Your task to perform on an android device: What's on my calendar tomorrow? Image 0: 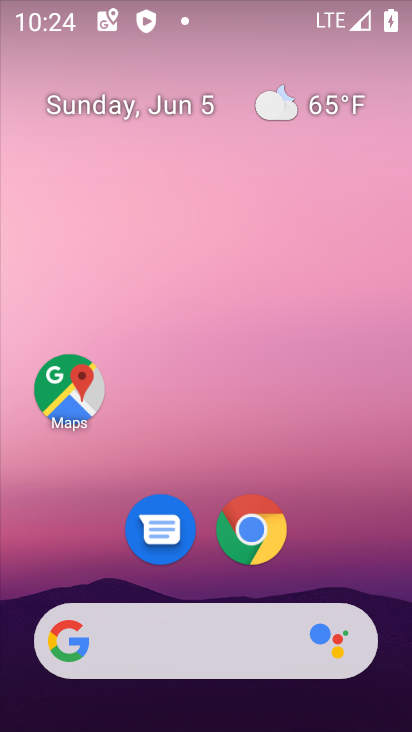
Step 0: drag from (135, 515) to (99, 8)
Your task to perform on an android device: What's on my calendar tomorrow? Image 1: 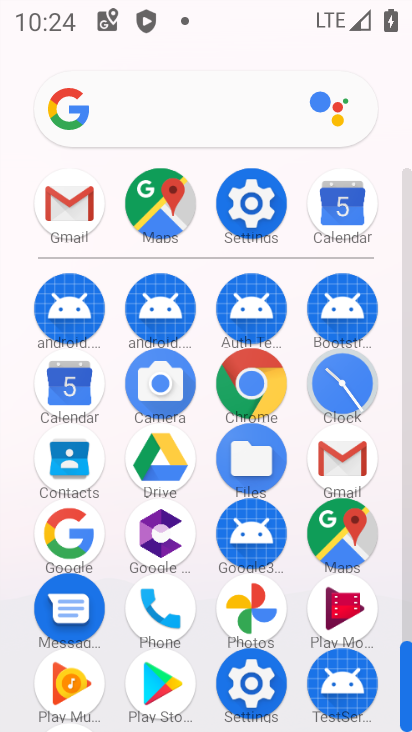
Step 1: click (74, 408)
Your task to perform on an android device: What's on my calendar tomorrow? Image 2: 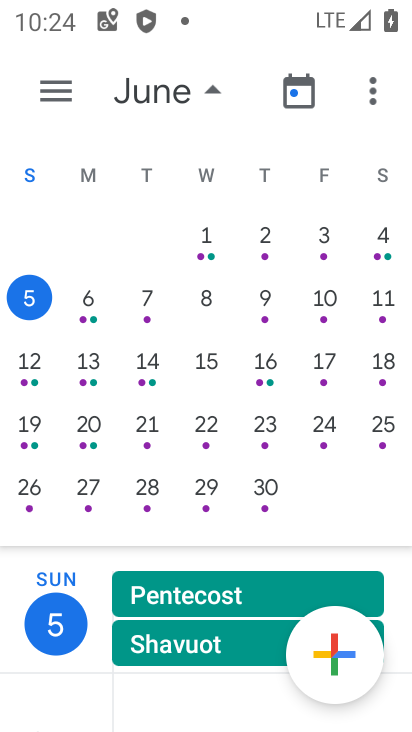
Step 2: click (79, 307)
Your task to perform on an android device: What's on my calendar tomorrow? Image 3: 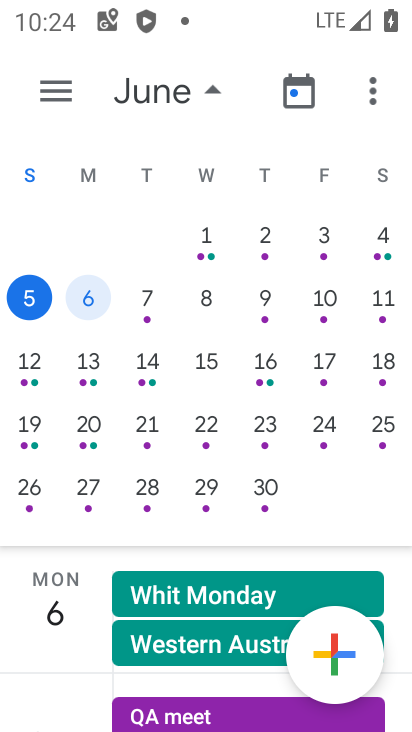
Step 3: task complete